Your task to perform on an android device: Show me popular games on the Play Store Image 0: 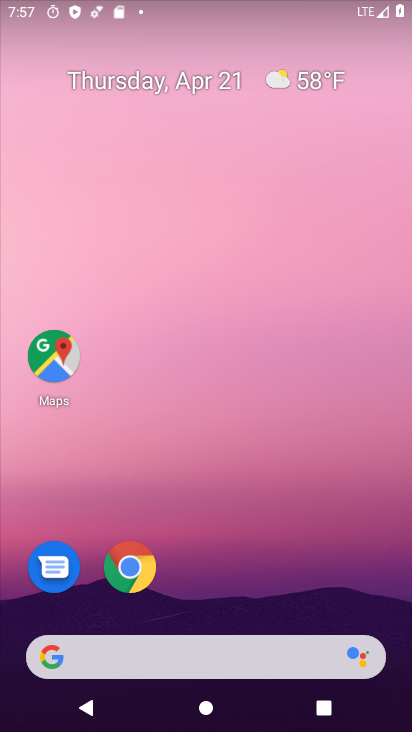
Step 0: drag from (219, 599) to (207, 4)
Your task to perform on an android device: Show me popular games on the Play Store Image 1: 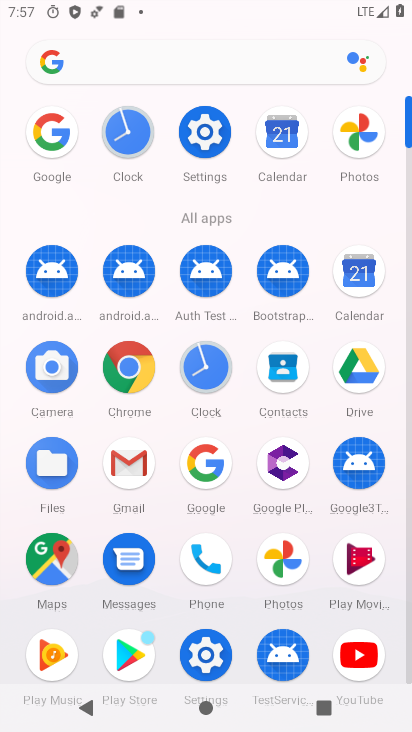
Step 1: drag from (240, 454) to (253, 194)
Your task to perform on an android device: Show me popular games on the Play Store Image 2: 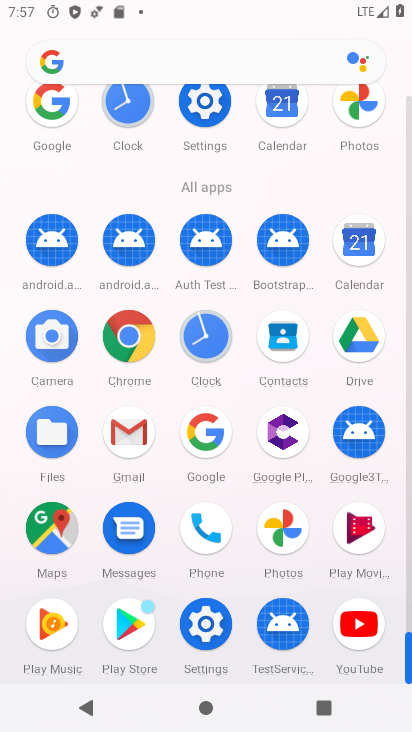
Step 2: click (134, 623)
Your task to perform on an android device: Show me popular games on the Play Store Image 3: 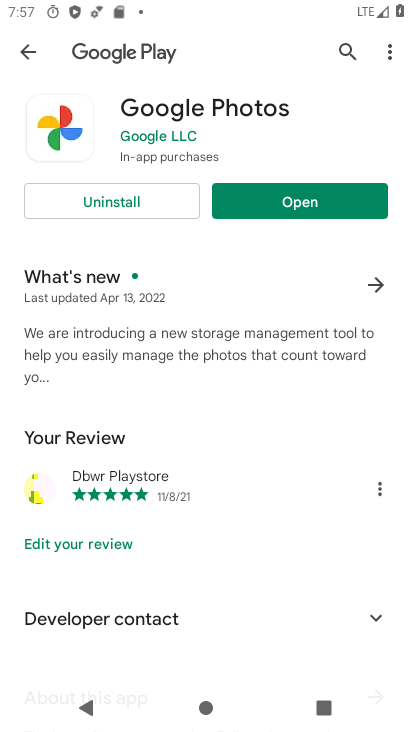
Step 3: press back button
Your task to perform on an android device: Show me popular games on the Play Store Image 4: 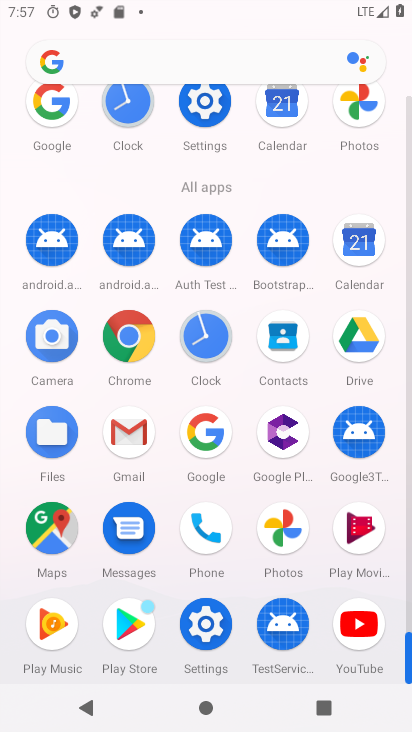
Step 4: click (129, 620)
Your task to perform on an android device: Show me popular games on the Play Store Image 5: 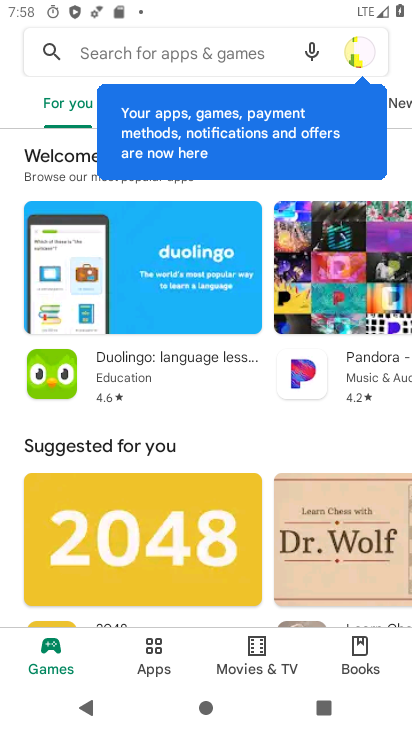
Step 5: click (176, 53)
Your task to perform on an android device: Show me popular games on the Play Store Image 6: 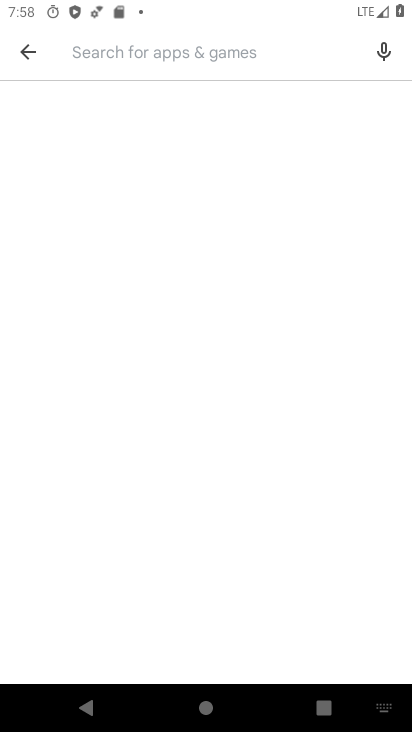
Step 6: type "popular"
Your task to perform on an android device: Show me popular games on the Play Store Image 7: 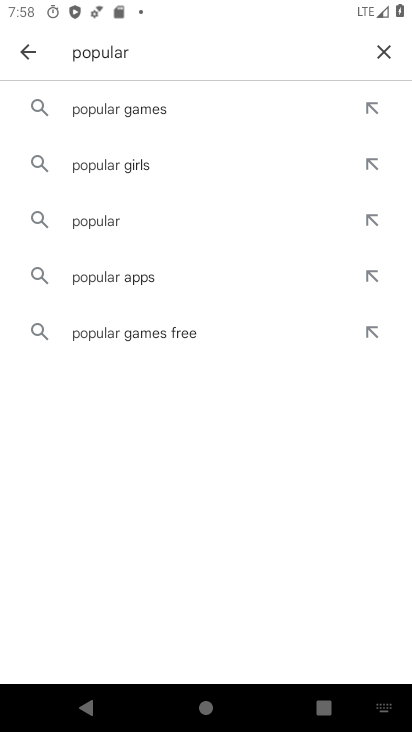
Step 7: click (146, 106)
Your task to perform on an android device: Show me popular games on the Play Store Image 8: 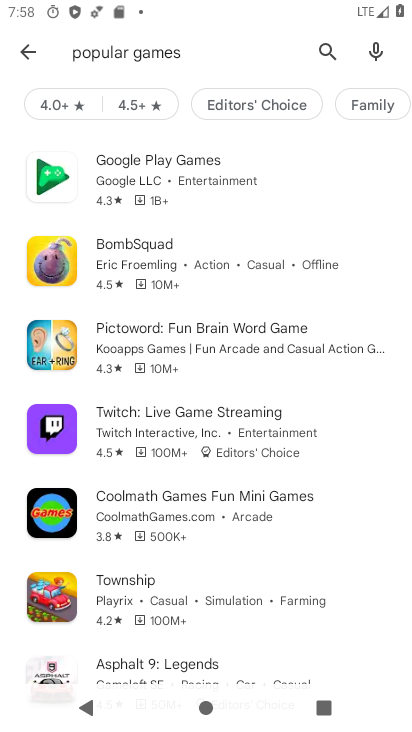
Step 8: task complete